Your task to perform on an android device: Open eBay Image 0: 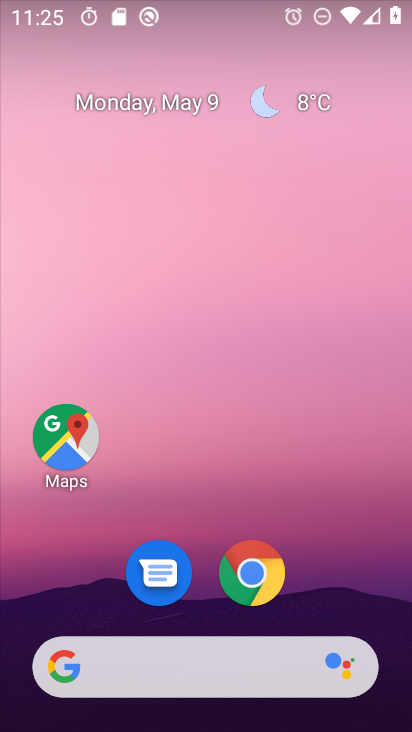
Step 0: click (256, 570)
Your task to perform on an android device: Open eBay Image 1: 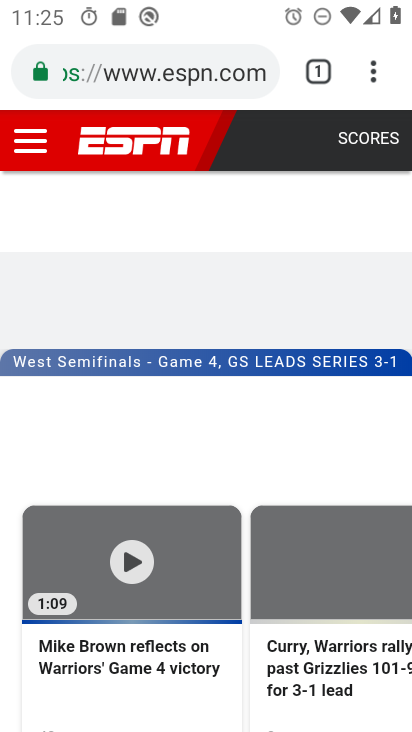
Step 1: click (206, 55)
Your task to perform on an android device: Open eBay Image 2: 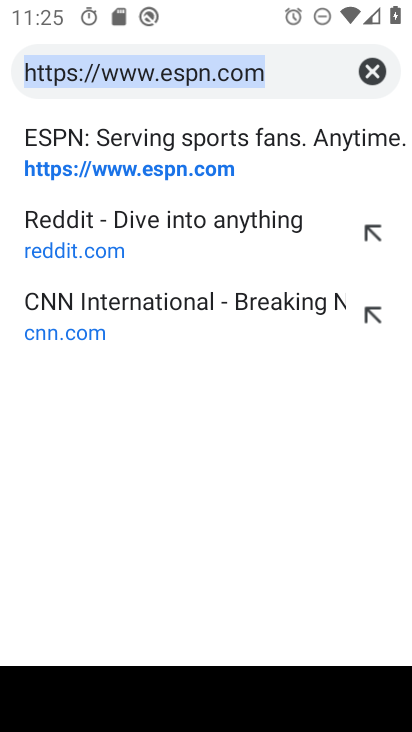
Step 2: type "ebay"
Your task to perform on an android device: Open eBay Image 3: 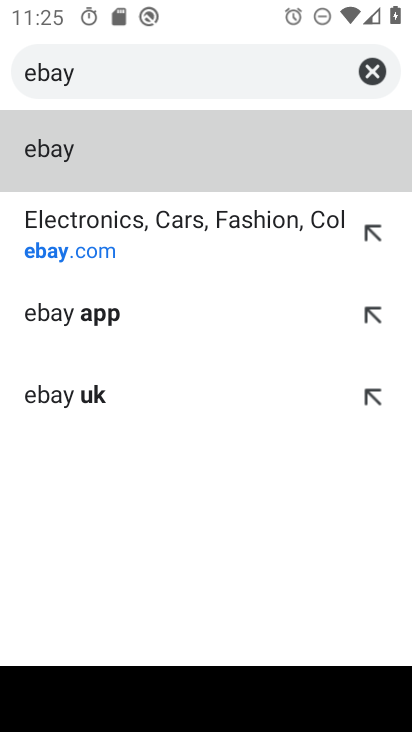
Step 3: click (68, 242)
Your task to perform on an android device: Open eBay Image 4: 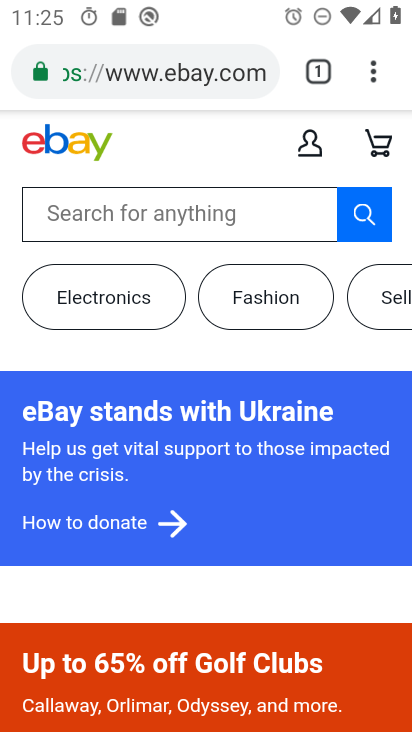
Step 4: task complete